Your task to perform on an android device: Open accessibility settings Image 0: 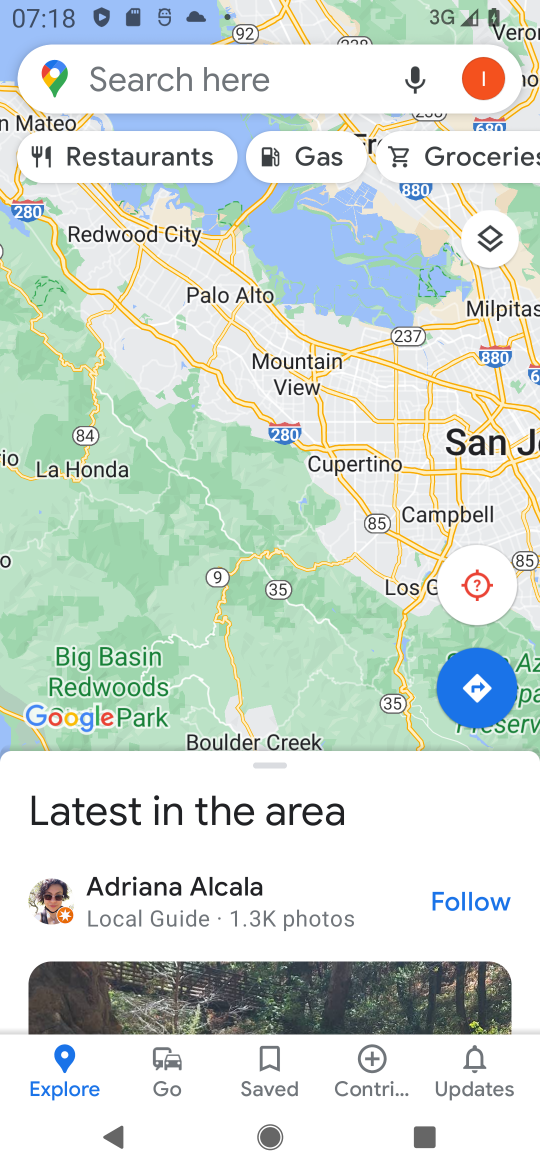
Step 0: press home button
Your task to perform on an android device: Open accessibility settings Image 1: 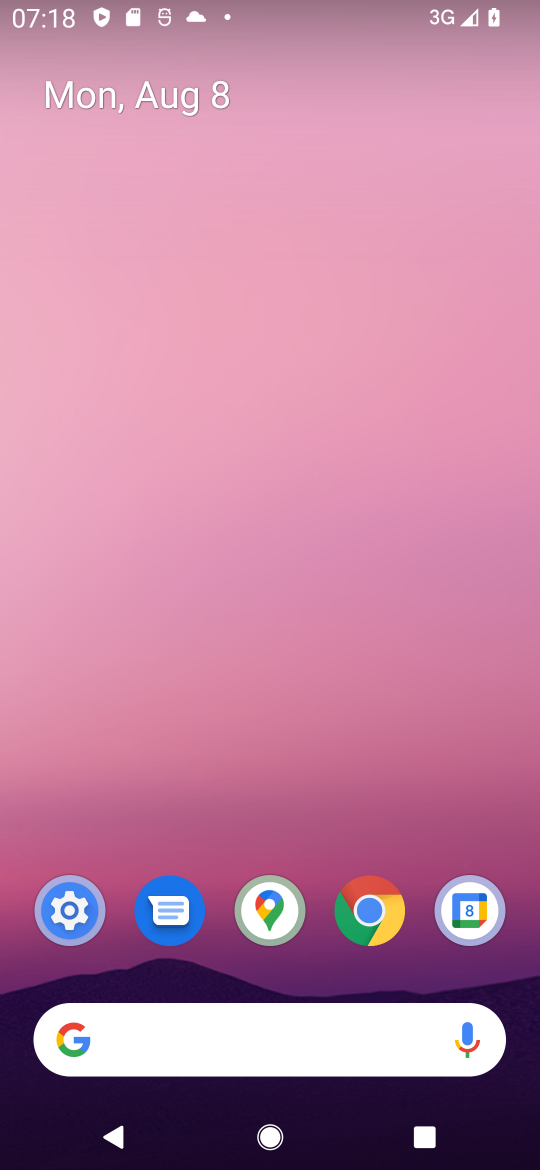
Step 1: drag from (191, 1032) to (324, 478)
Your task to perform on an android device: Open accessibility settings Image 2: 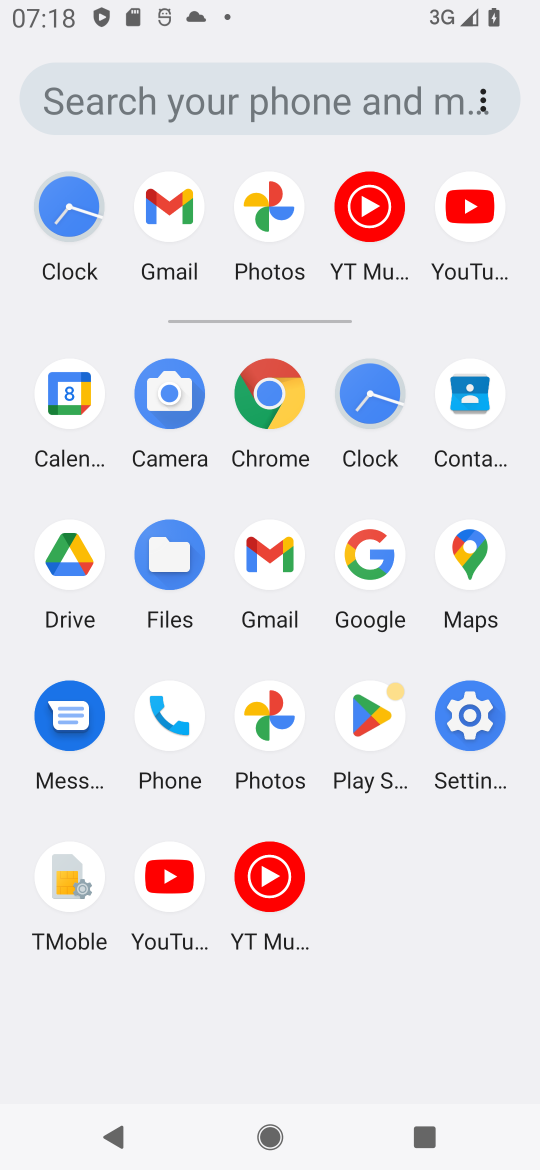
Step 2: click (468, 714)
Your task to perform on an android device: Open accessibility settings Image 3: 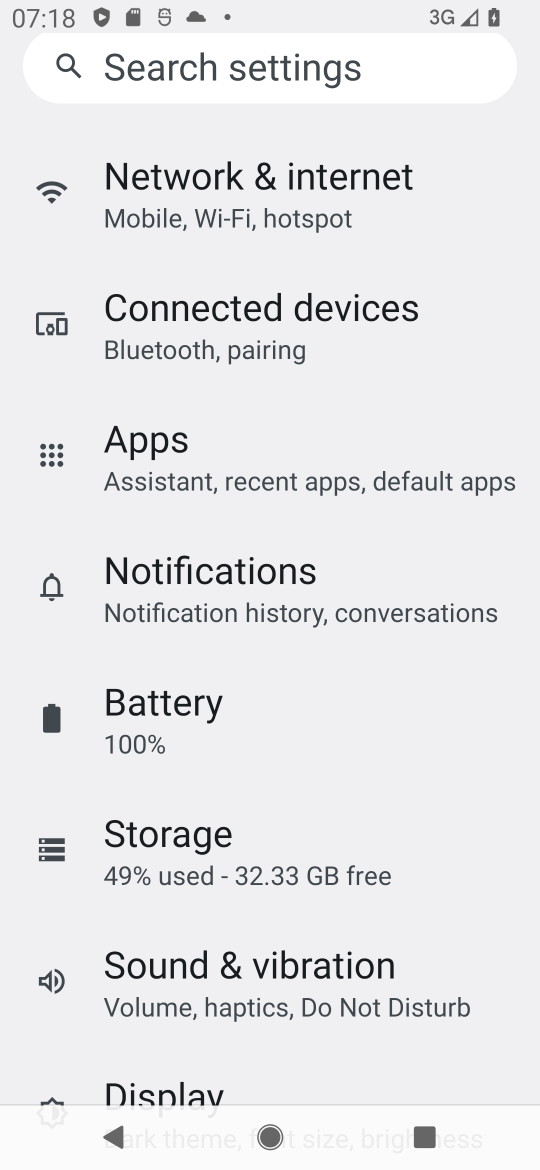
Step 3: drag from (268, 807) to (364, 630)
Your task to perform on an android device: Open accessibility settings Image 4: 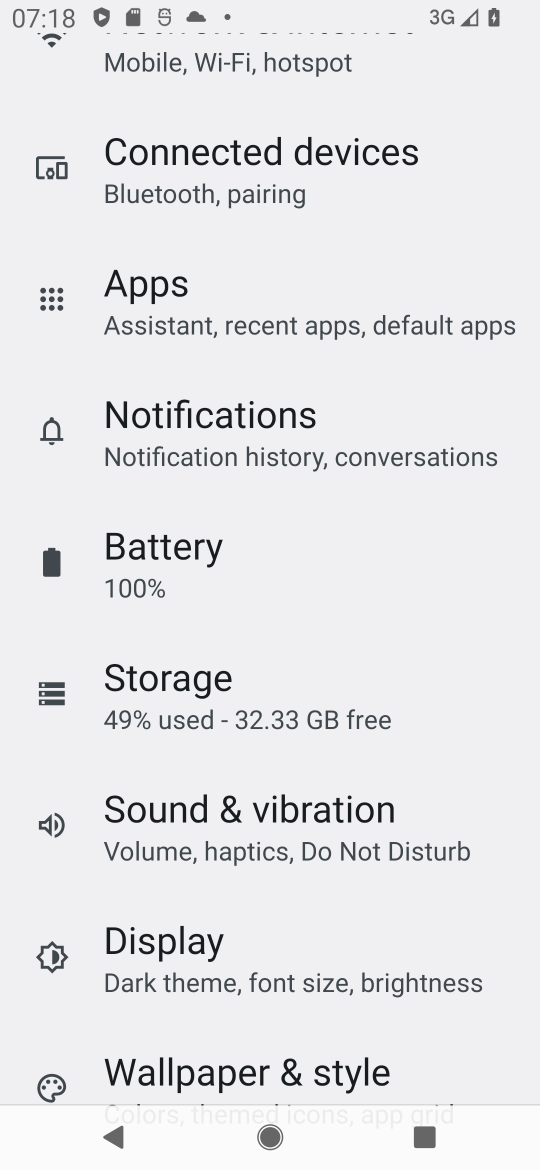
Step 4: drag from (243, 888) to (399, 689)
Your task to perform on an android device: Open accessibility settings Image 5: 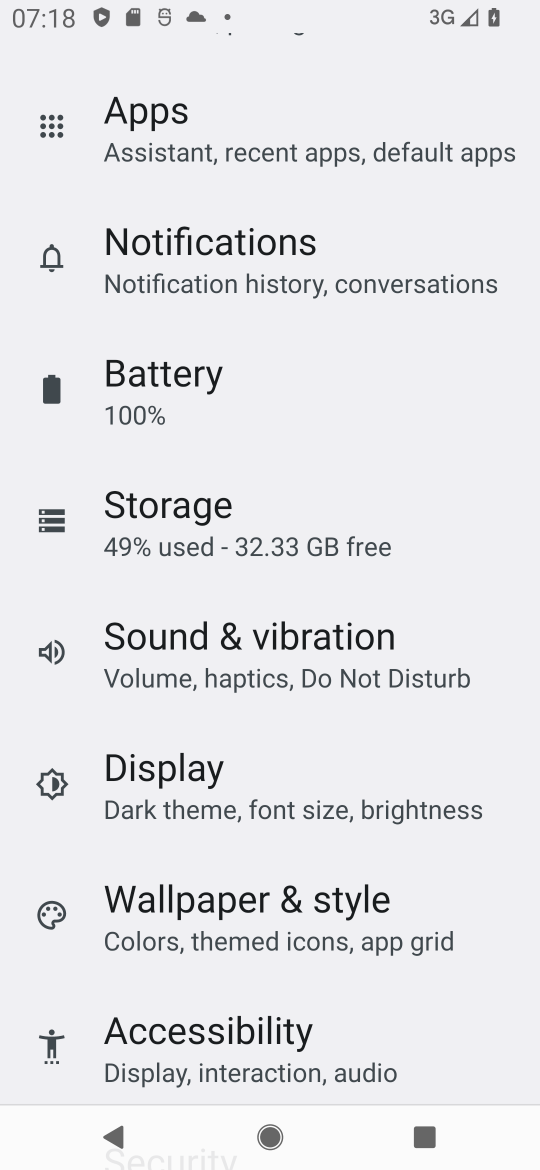
Step 5: drag from (262, 837) to (394, 688)
Your task to perform on an android device: Open accessibility settings Image 6: 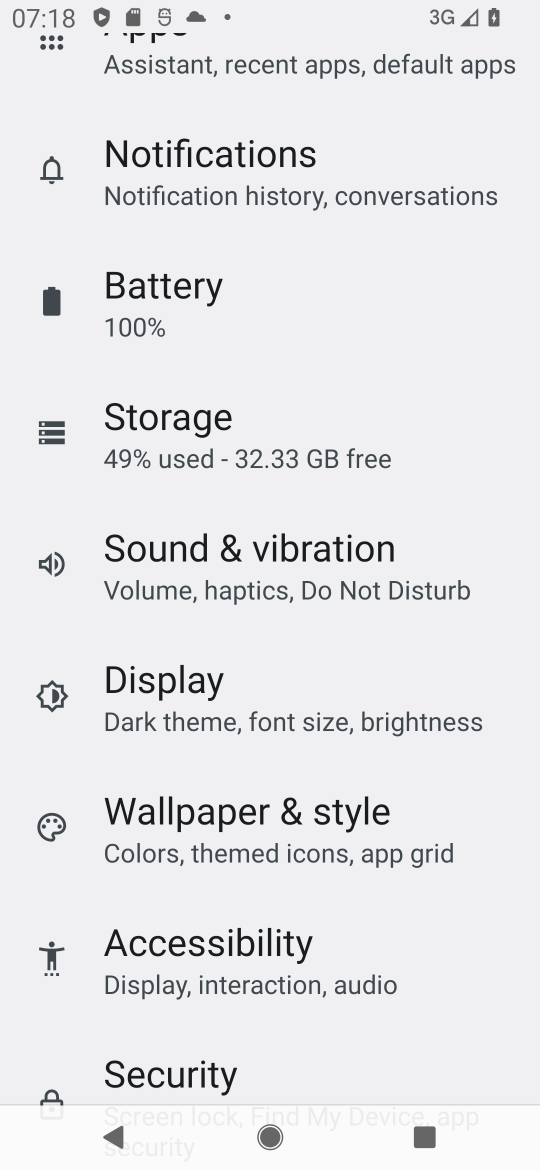
Step 6: drag from (268, 860) to (402, 707)
Your task to perform on an android device: Open accessibility settings Image 7: 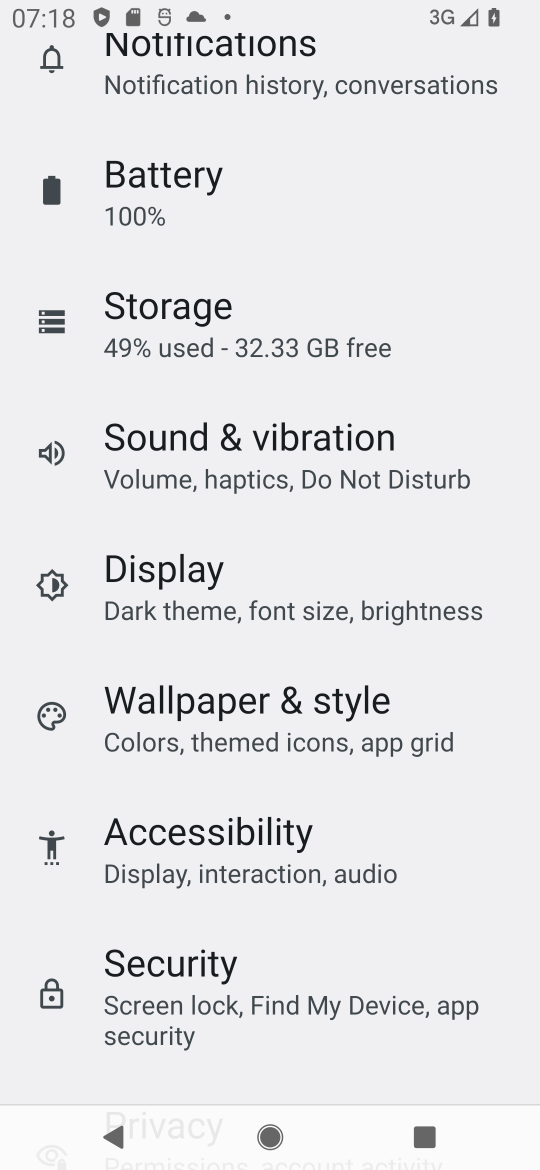
Step 7: click (266, 846)
Your task to perform on an android device: Open accessibility settings Image 8: 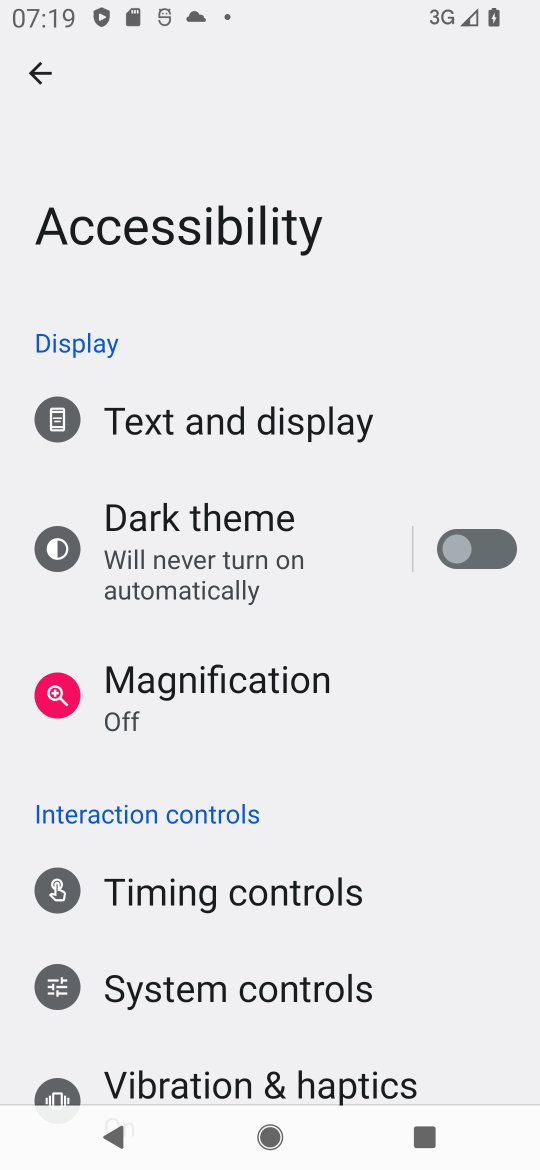
Step 8: task complete